Your task to perform on an android device: Search for rayovac triple a on bestbuy.com, select the first entry, add it to the cart, then select checkout. Image 0: 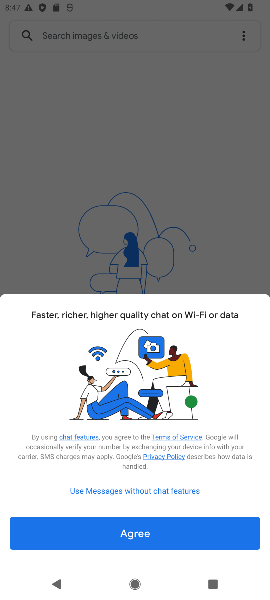
Step 0: press home button
Your task to perform on an android device: Search for rayovac triple a on bestbuy.com, select the first entry, add it to the cart, then select checkout. Image 1: 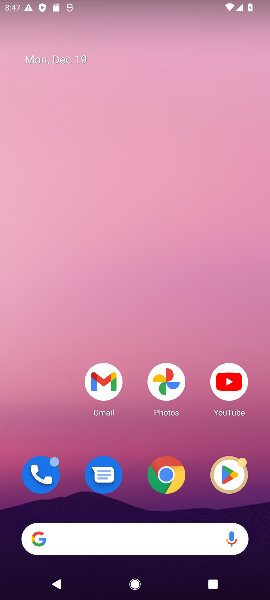
Step 1: click (167, 475)
Your task to perform on an android device: Search for rayovac triple a on bestbuy.com, select the first entry, add it to the cart, then select checkout. Image 2: 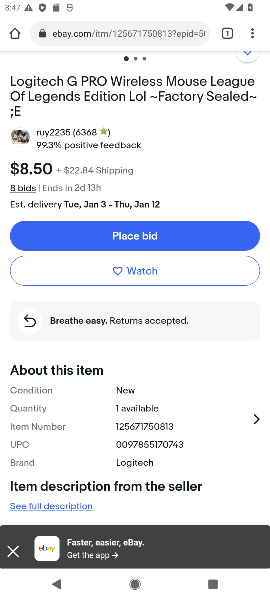
Step 2: click (140, 31)
Your task to perform on an android device: Search for rayovac triple a on bestbuy.com, select the first entry, add it to the cart, then select checkout. Image 3: 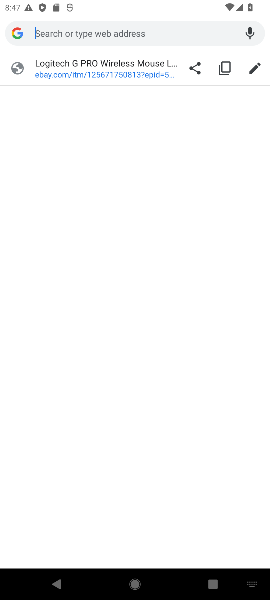
Step 3: type "bestbuy"
Your task to perform on an android device: Search for rayovac triple a on bestbuy.com, select the first entry, add it to the cart, then select checkout. Image 4: 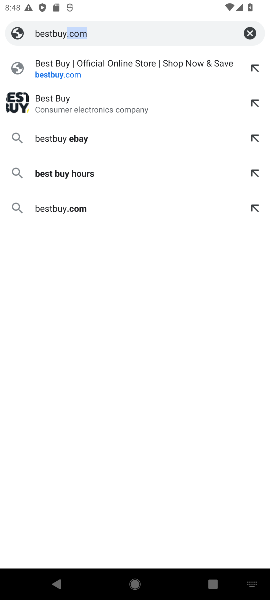
Step 4: click (120, 63)
Your task to perform on an android device: Search for rayovac triple a on bestbuy.com, select the first entry, add it to the cart, then select checkout. Image 5: 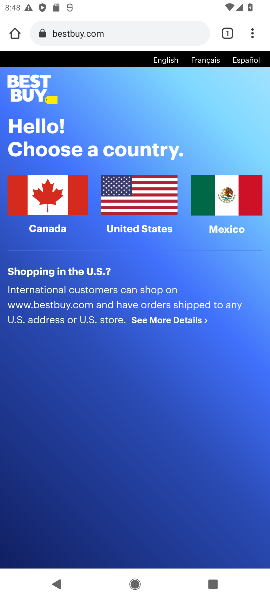
Step 5: click (135, 191)
Your task to perform on an android device: Search for rayovac triple a on bestbuy.com, select the first entry, add it to the cart, then select checkout. Image 6: 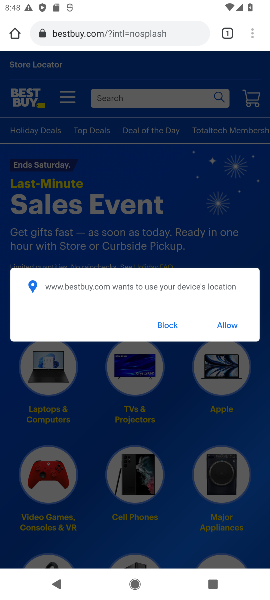
Step 6: click (169, 324)
Your task to perform on an android device: Search for rayovac triple a on bestbuy.com, select the first entry, add it to the cart, then select checkout. Image 7: 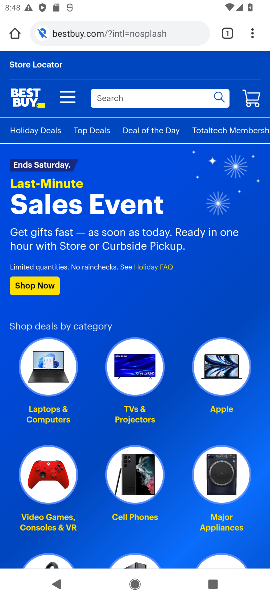
Step 7: click (155, 97)
Your task to perform on an android device: Search for rayovac triple a on bestbuy.com, select the first entry, add it to the cart, then select checkout. Image 8: 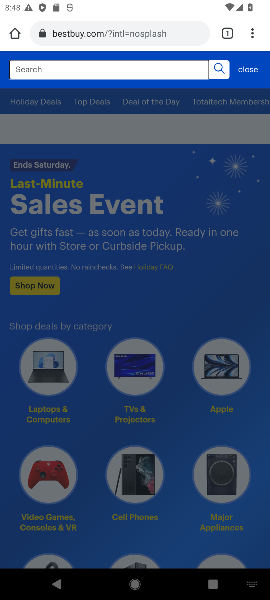
Step 8: type "rayovac triple a"
Your task to perform on an android device: Search for rayovac triple a on bestbuy.com, select the first entry, add it to the cart, then select checkout. Image 9: 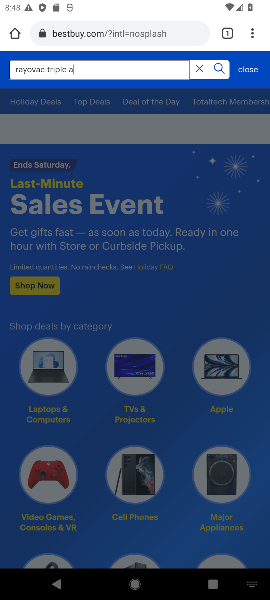
Step 9: click (220, 65)
Your task to perform on an android device: Search for rayovac triple a on bestbuy.com, select the first entry, add it to the cart, then select checkout. Image 10: 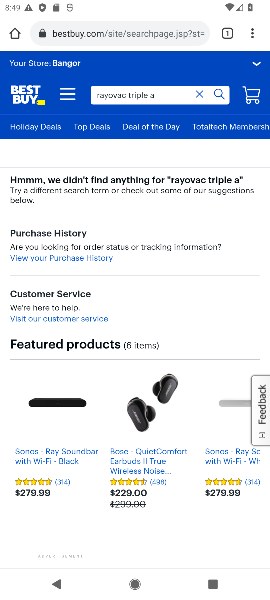
Step 10: task complete